Your task to perform on an android device: Search for seafood restaurants on Google Maps Image 0: 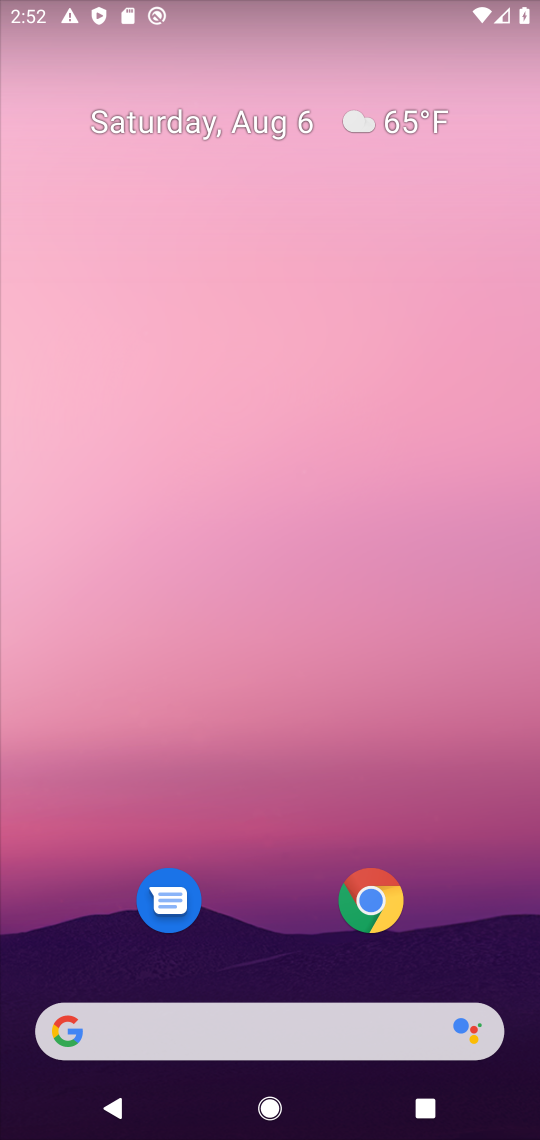
Step 0: press home button
Your task to perform on an android device: Search for seafood restaurants on Google Maps Image 1: 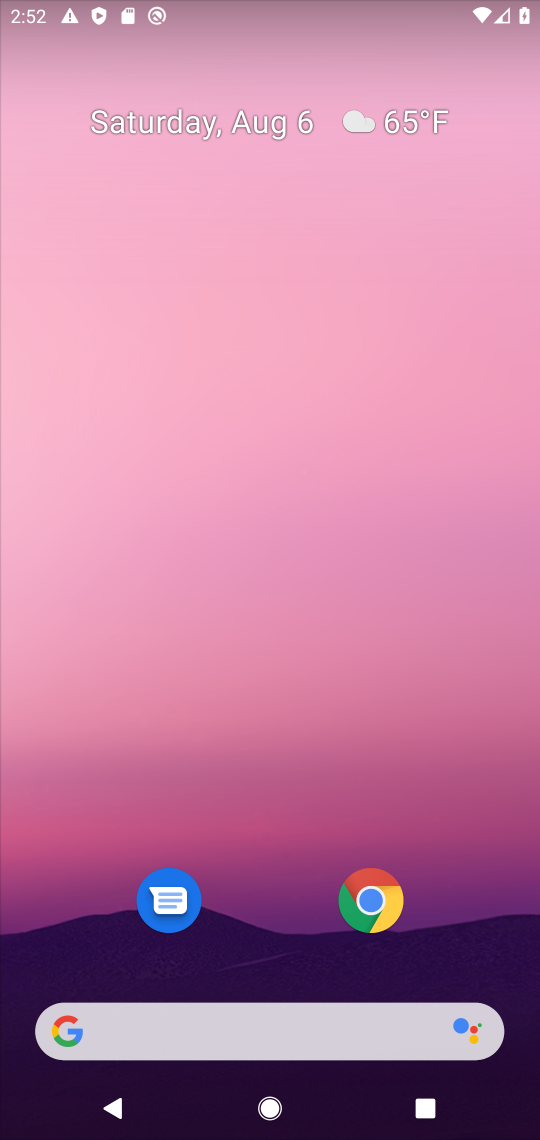
Step 1: drag from (292, 964) to (321, 257)
Your task to perform on an android device: Search for seafood restaurants on Google Maps Image 2: 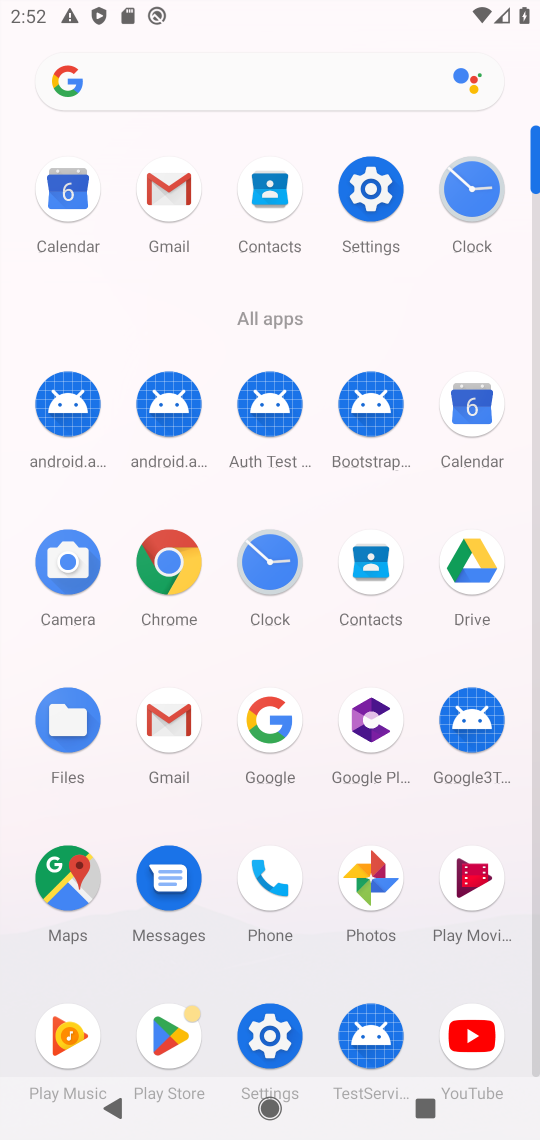
Step 2: click (63, 887)
Your task to perform on an android device: Search for seafood restaurants on Google Maps Image 3: 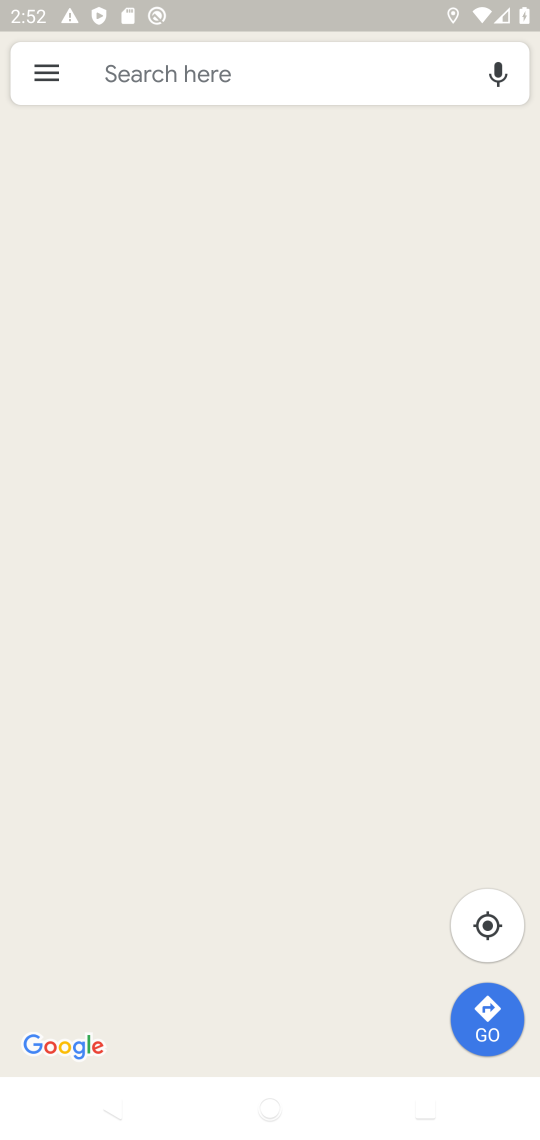
Step 3: click (263, 71)
Your task to perform on an android device: Search for seafood restaurants on Google Maps Image 4: 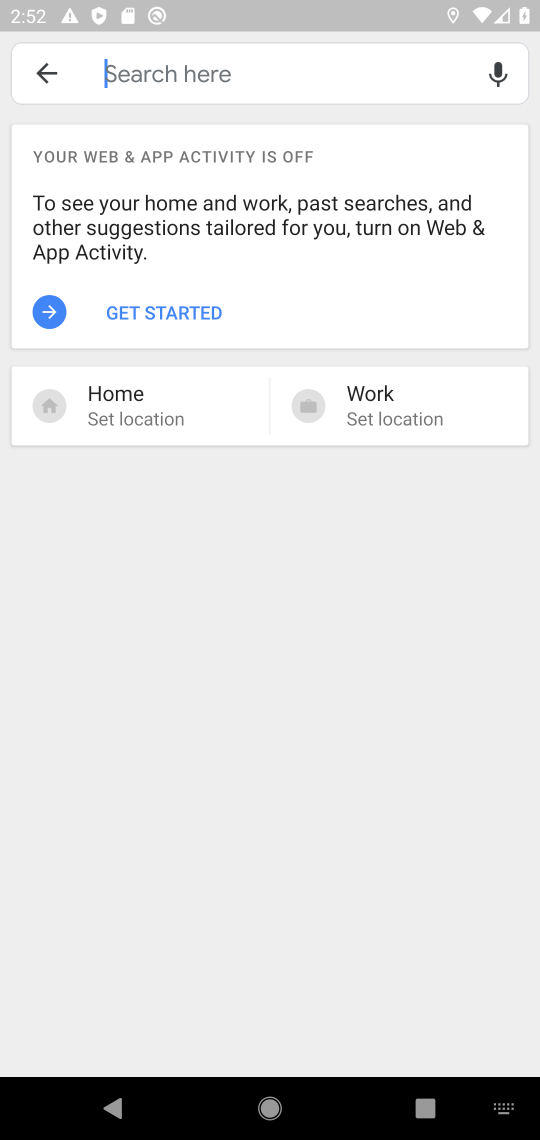
Step 4: type "seafood restaurants"
Your task to perform on an android device: Search for seafood restaurants on Google Maps Image 5: 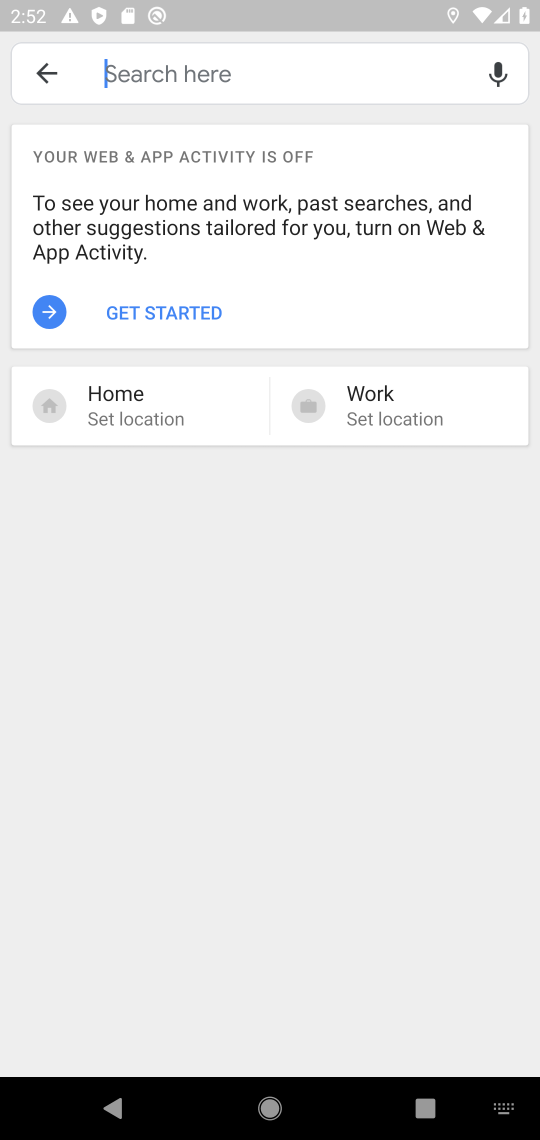
Step 5: click (127, 60)
Your task to perform on an android device: Search for seafood restaurants on Google Maps Image 6: 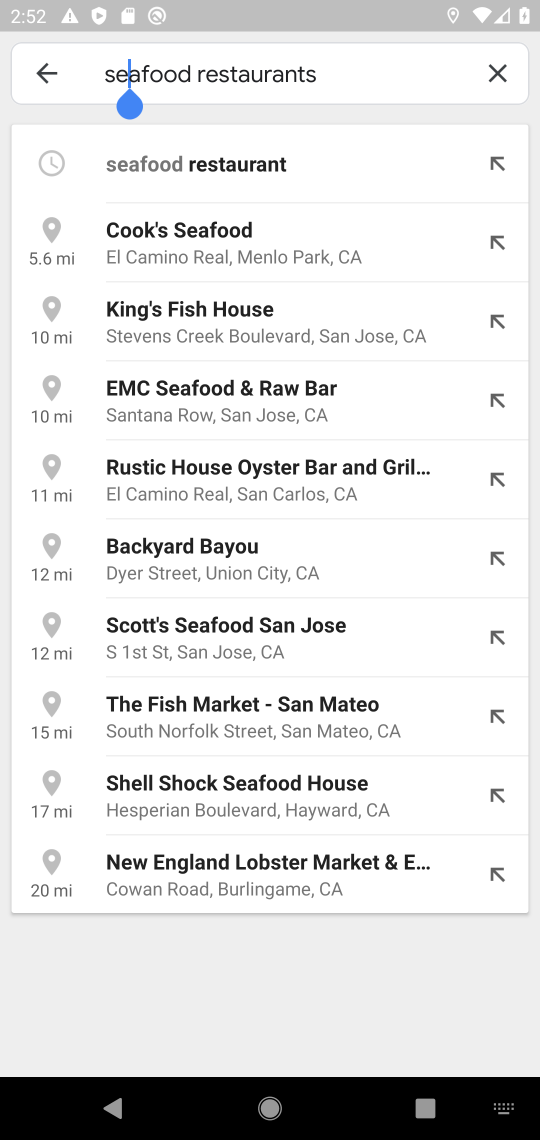
Step 6: click (214, 81)
Your task to perform on an android device: Search for seafood restaurants on Google Maps Image 7: 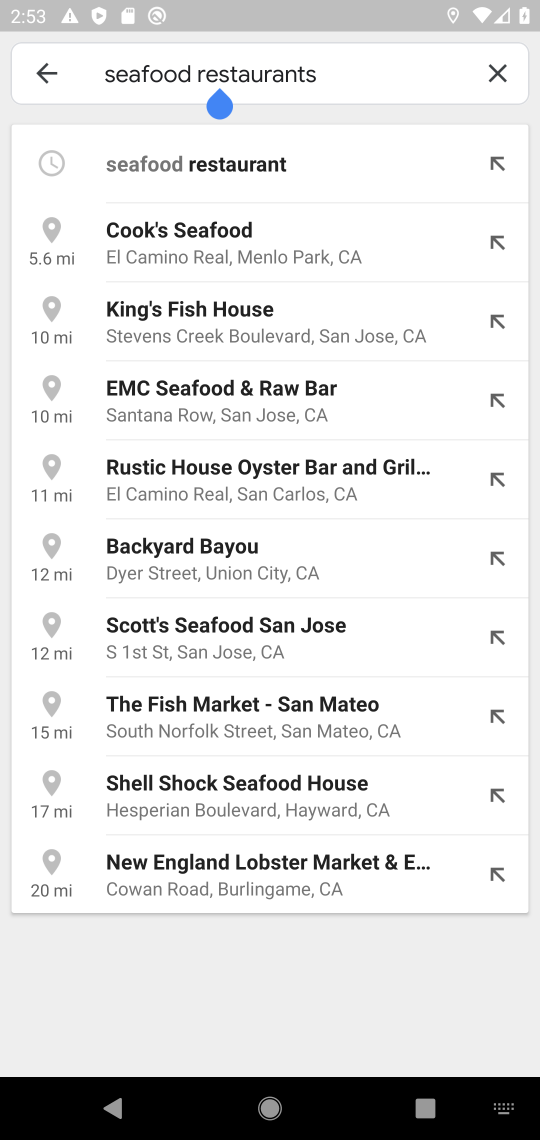
Step 7: click (215, 157)
Your task to perform on an android device: Search for seafood restaurants on Google Maps Image 8: 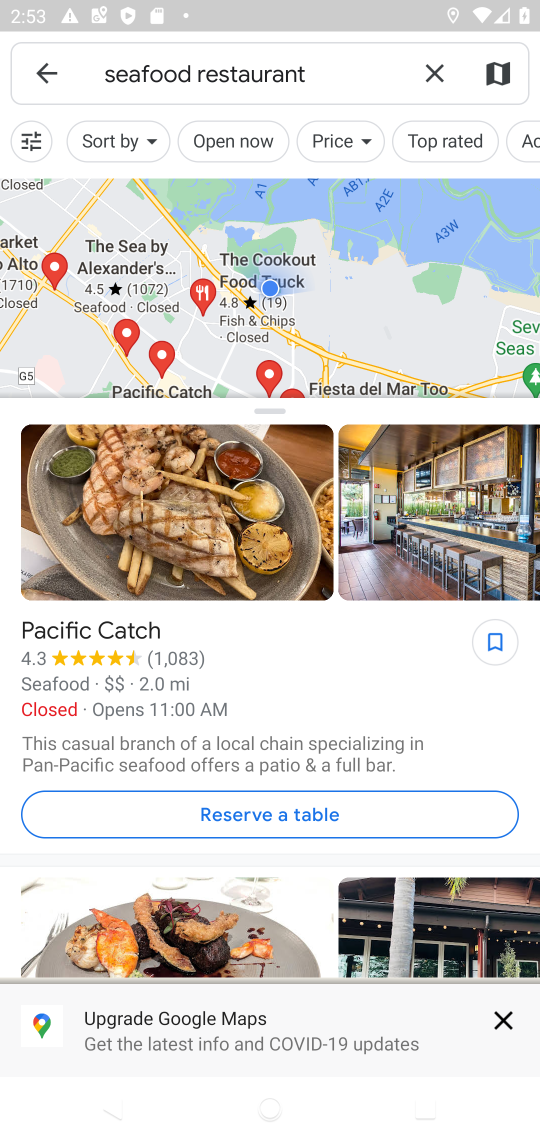
Step 8: task complete